Your task to perform on an android device: check data usage Image 0: 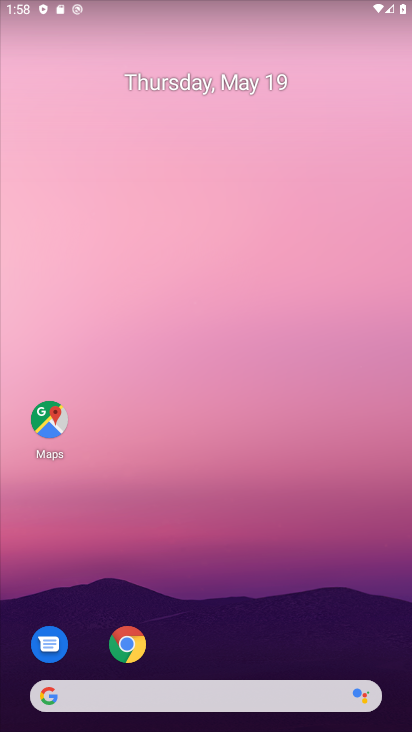
Step 0: drag from (228, 602) to (242, 278)
Your task to perform on an android device: check data usage Image 1: 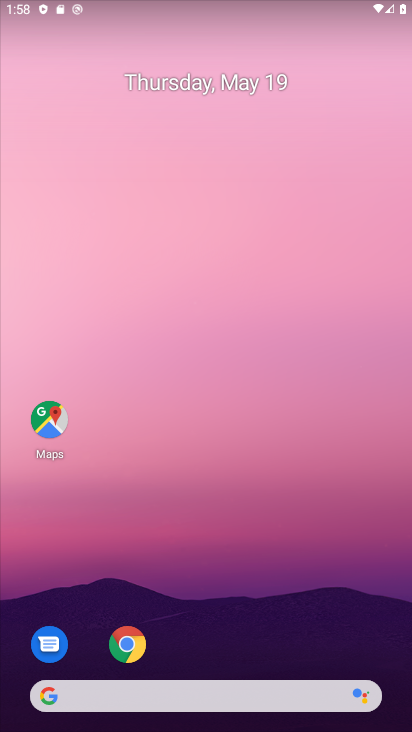
Step 1: drag from (226, 565) to (239, 190)
Your task to perform on an android device: check data usage Image 2: 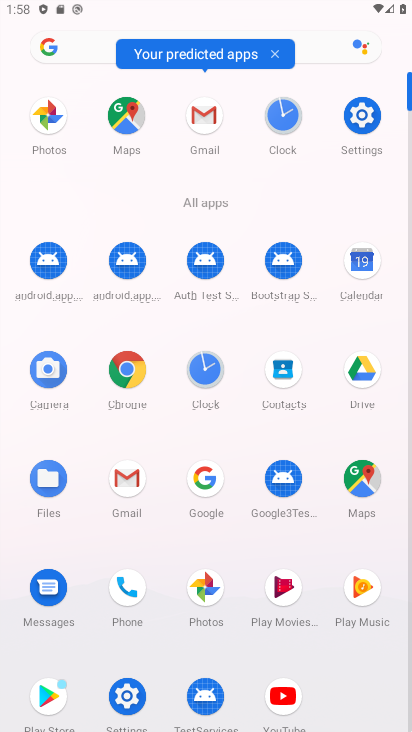
Step 2: click (377, 113)
Your task to perform on an android device: check data usage Image 3: 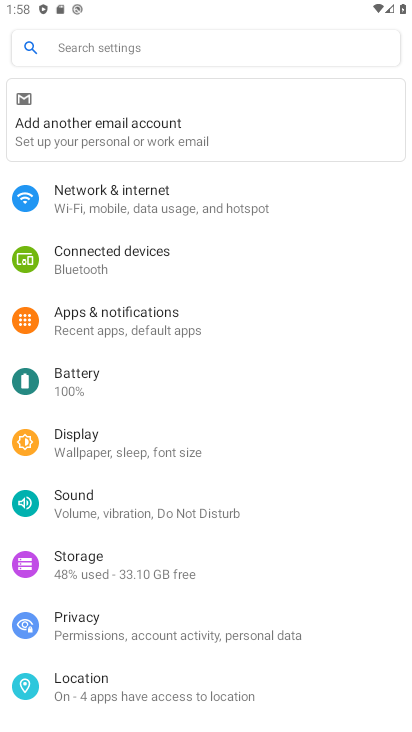
Step 3: click (151, 130)
Your task to perform on an android device: check data usage Image 4: 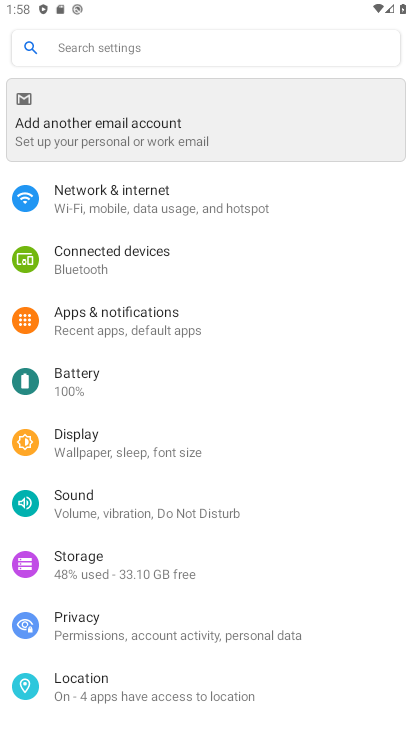
Step 4: click (151, 191)
Your task to perform on an android device: check data usage Image 5: 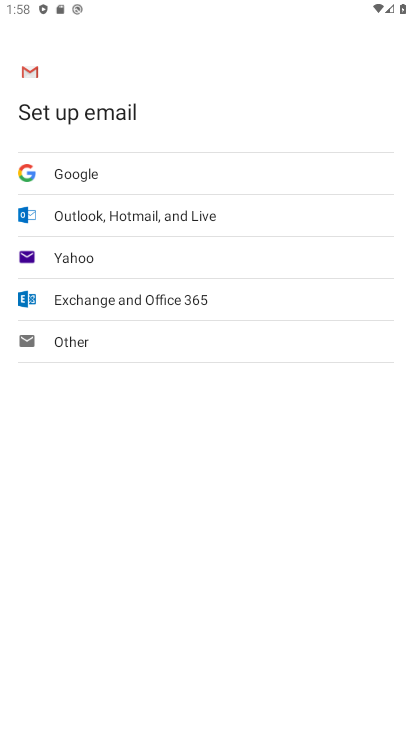
Step 5: press back button
Your task to perform on an android device: check data usage Image 6: 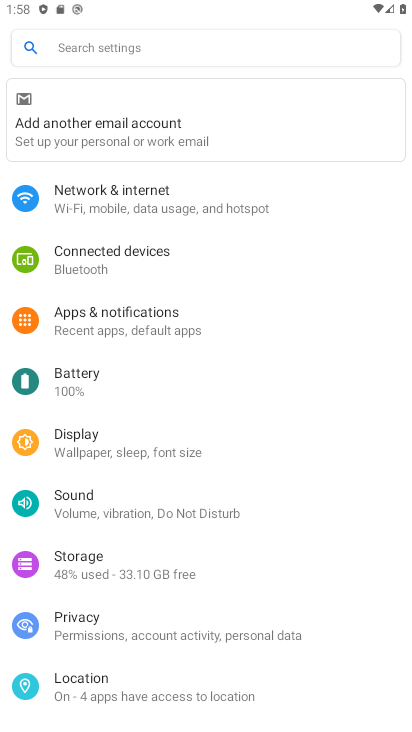
Step 6: click (122, 186)
Your task to perform on an android device: check data usage Image 7: 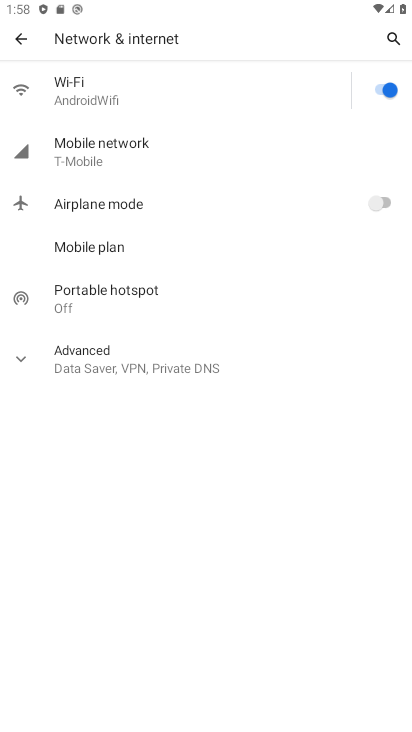
Step 7: task complete